Your task to perform on an android device: When is my next meeting? Image 0: 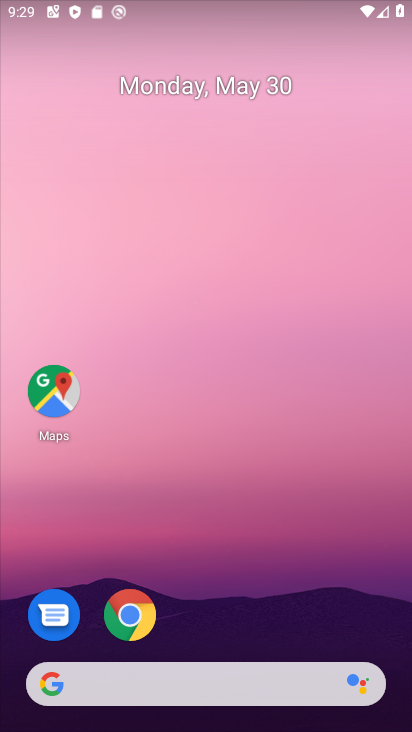
Step 0: drag from (269, 575) to (186, 26)
Your task to perform on an android device: When is my next meeting? Image 1: 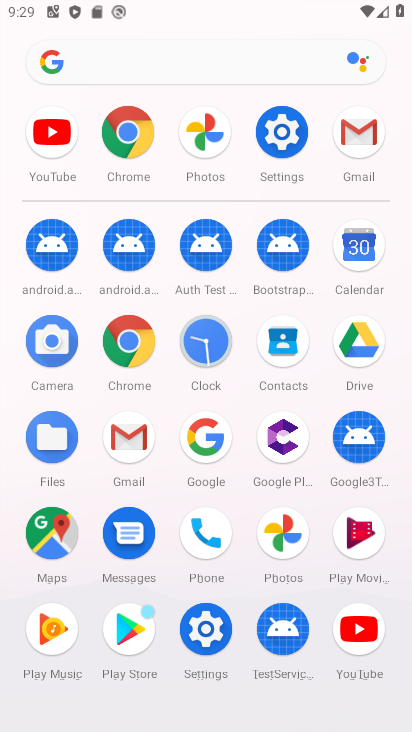
Step 1: click (375, 250)
Your task to perform on an android device: When is my next meeting? Image 2: 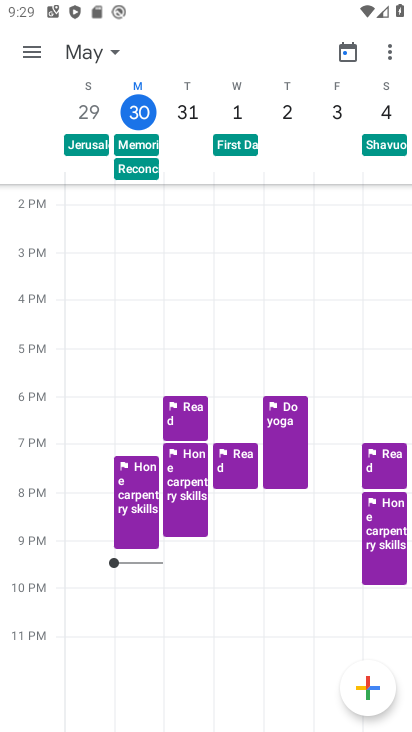
Step 2: task complete